Your task to perform on an android device: Open Chrome and go to the settings page Image 0: 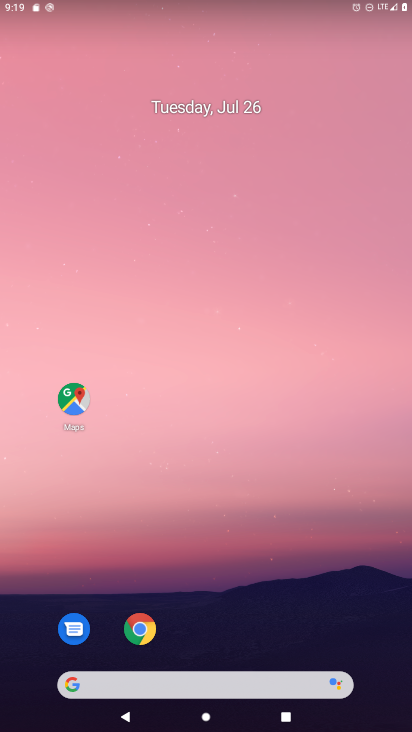
Step 0: click (136, 632)
Your task to perform on an android device: Open Chrome and go to the settings page Image 1: 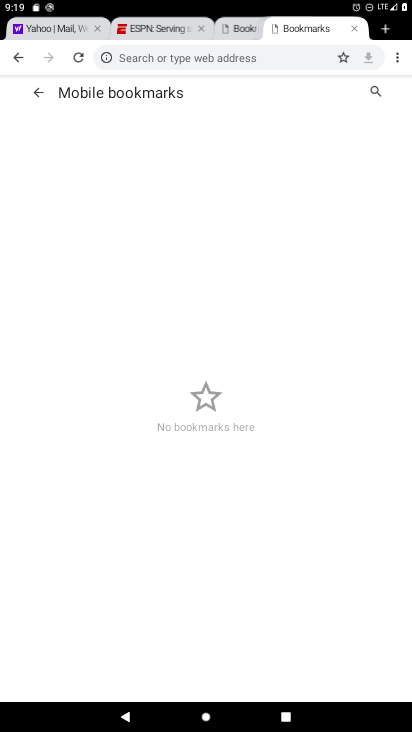
Step 1: task complete